Your task to perform on an android device: change keyboard looks Image 0: 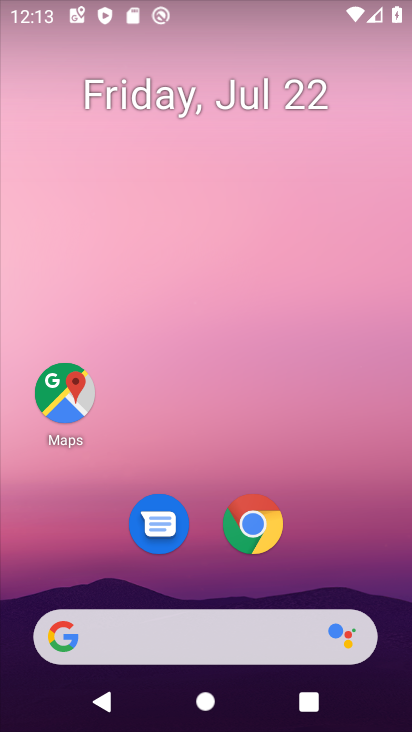
Step 0: drag from (309, 498) to (323, 49)
Your task to perform on an android device: change keyboard looks Image 1: 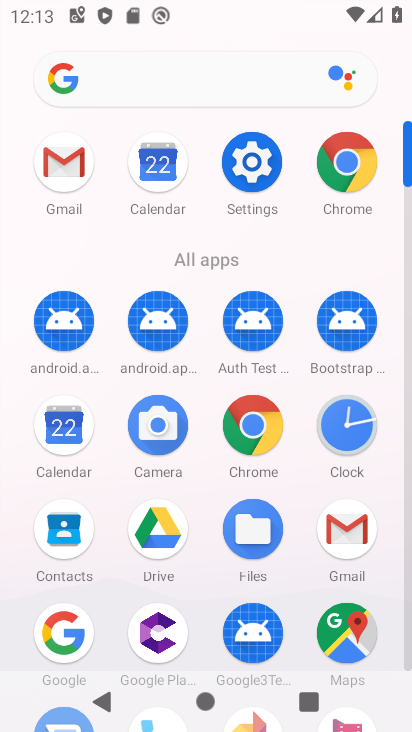
Step 1: click (253, 159)
Your task to perform on an android device: change keyboard looks Image 2: 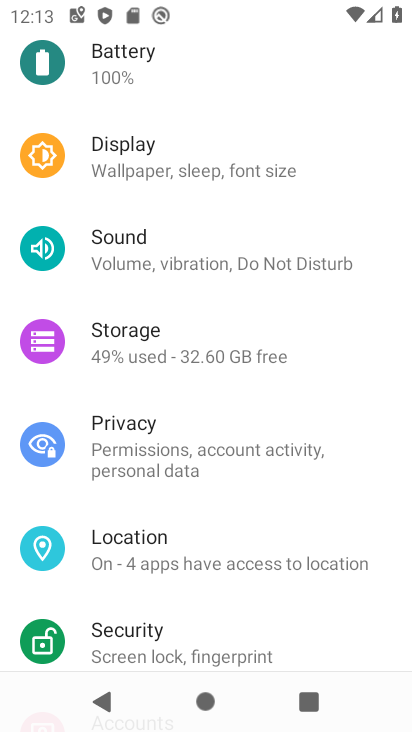
Step 2: drag from (251, 590) to (260, 121)
Your task to perform on an android device: change keyboard looks Image 3: 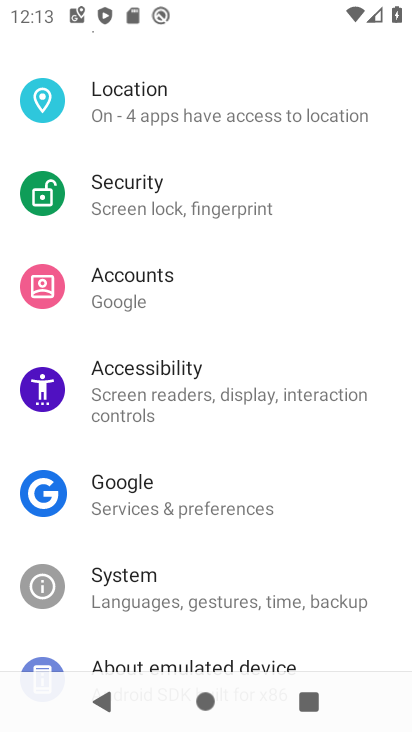
Step 3: click (223, 591)
Your task to perform on an android device: change keyboard looks Image 4: 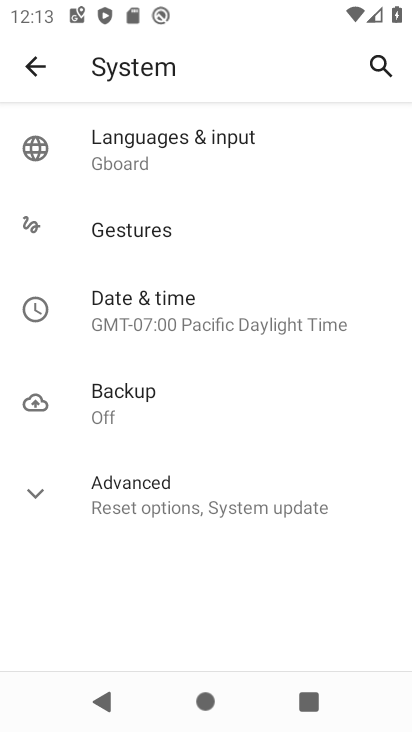
Step 4: click (161, 142)
Your task to perform on an android device: change keyboard looks Image 5: 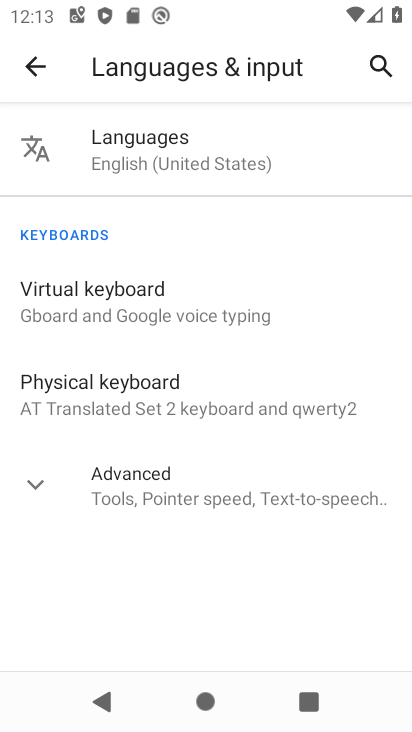
Step 5: click (39, 485)
Your task to perform on an android device: change keyboard looks Image 6: 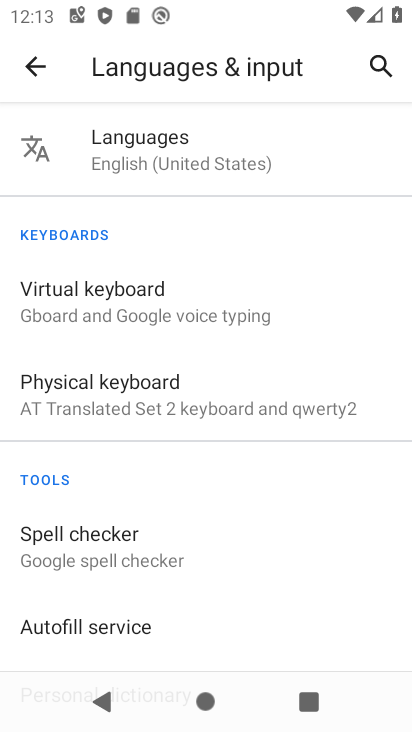
Step 6: click (157, 312)
Your task to perform on an android device: change keyboard looks Image 7: 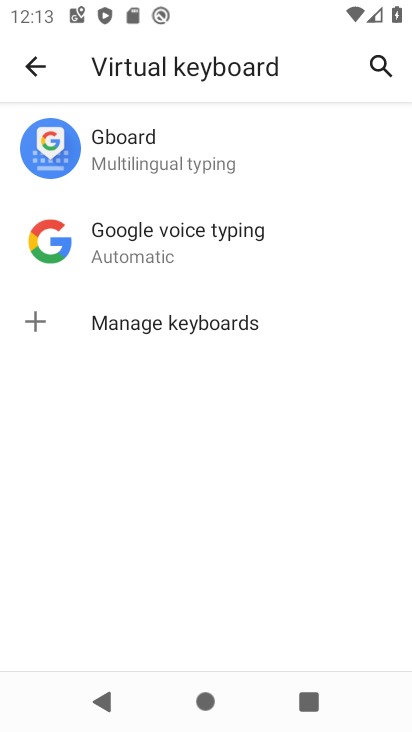
Step 7: click (155, 155)
Your task to perform on an android device: change keyboard looks Image 8: 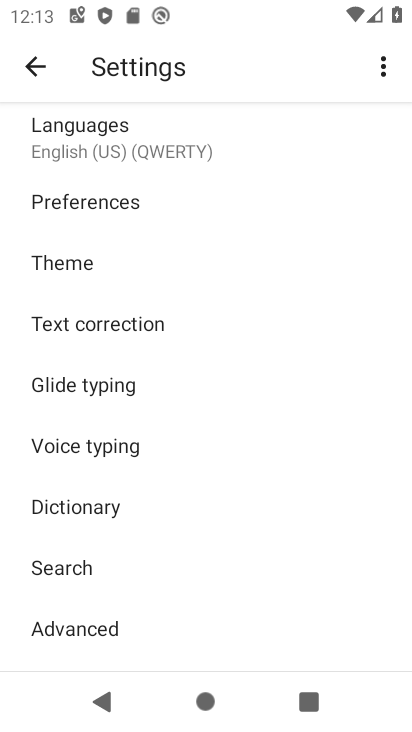
Step 8: click (83, 264)
Your task to perform on an android device: change keyboard looks Image 9: 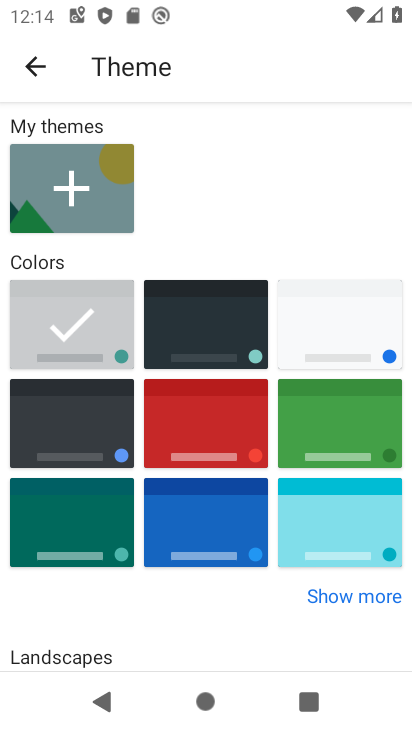
Step 9: click (185, 326)
Your task to perform on an android device: change keyboard looks Image 10: 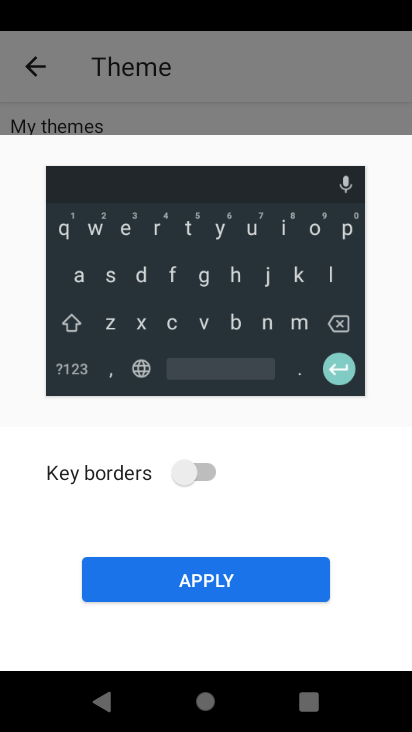
Step 10: click (195, 475)
Your task to perform on an android device: change keyboard looks Image 11: 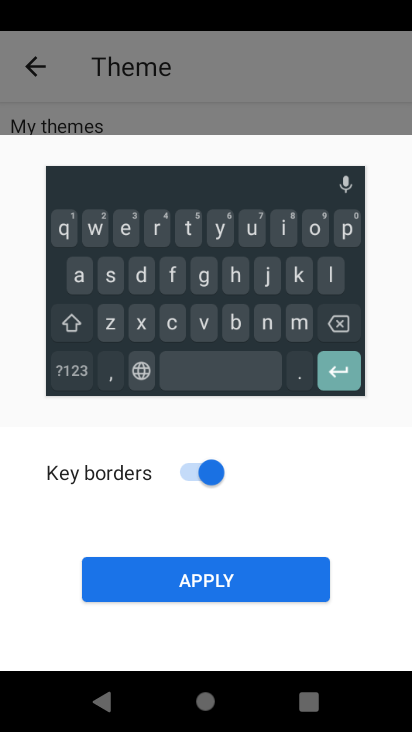
Step 11: click (223, 579)
Your task to perform on an android device: change keyboard looks Image 12: 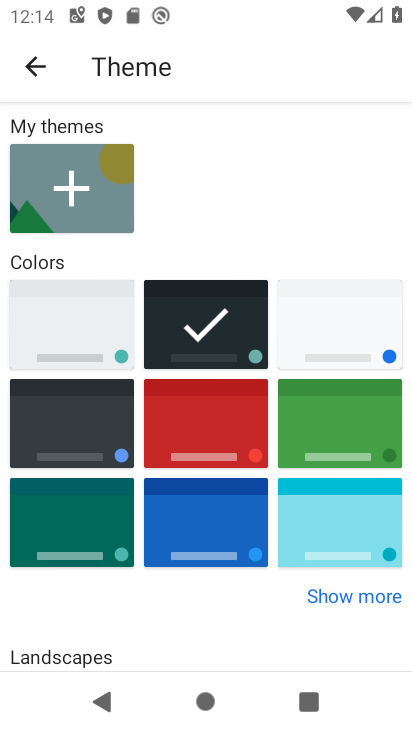
Step 12: task complete